Your task to perform on an android device: Play the last video I watched on Youtube Image 0: 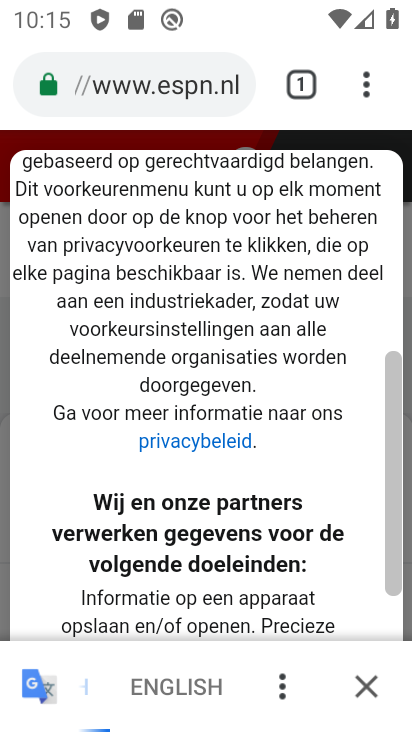
Step 0: press back button
Your task to perform on an android device: Play the last video I watched on Youtube Image 1: 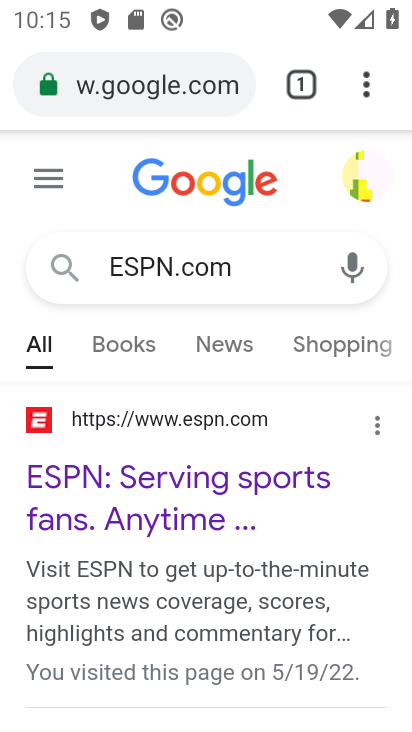
Step 1: press back button
Your task to perform on an android device: Play the last video I watched on Youtube Image 2: 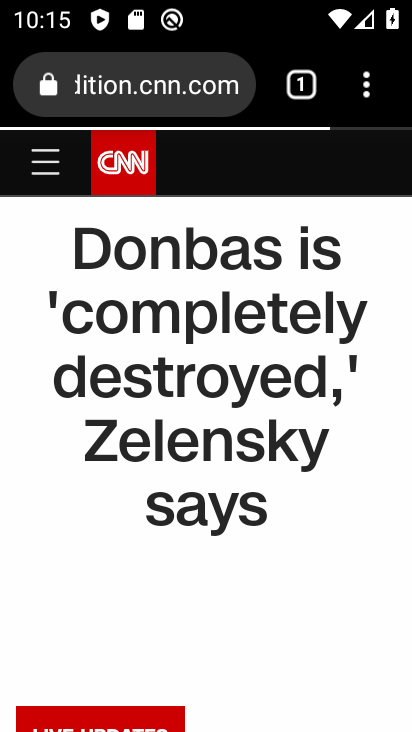
Step 2: press back button
Your task to perform on an android device: Play the last video I watched on Youtube Image 3: 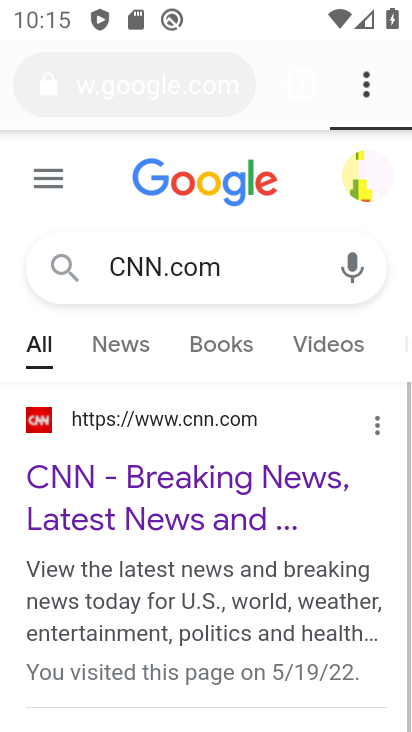
Step 3: press back button
Your task to perform on an android device: Play the last video I watched on Youtube Image 4: 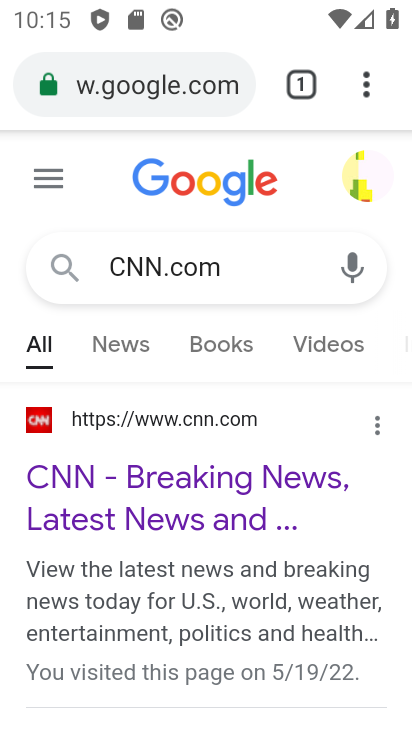
Step 4: press back button
Your task to perform on an android device: Play the last video I watched on Youtube Image 5: 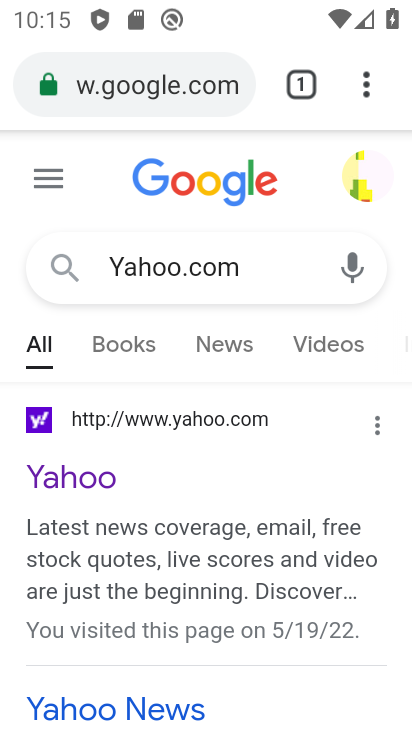
Step 5: press back button
Your task to perform on an android device: Play the last video I watched on Youtube Image 6: 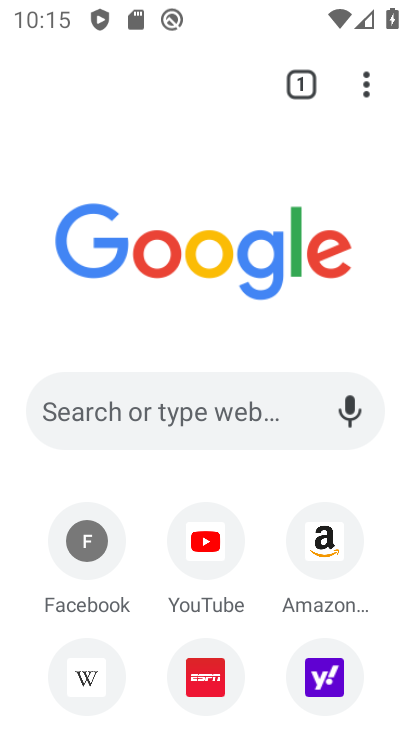
Step 6: press back button
Your task to perform on an android device: Play the last video I watched on Youtube Image 7: 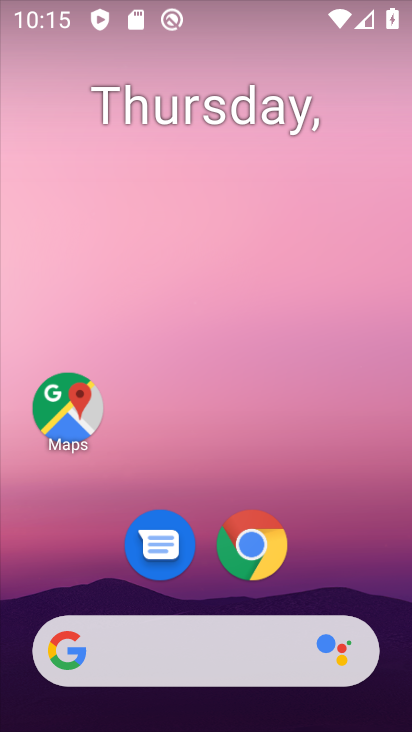
Step 7: drag from (333, 570) to (261, 156)
Your task to perform on an android device: Play the last video I watched on Youtube Image 8: 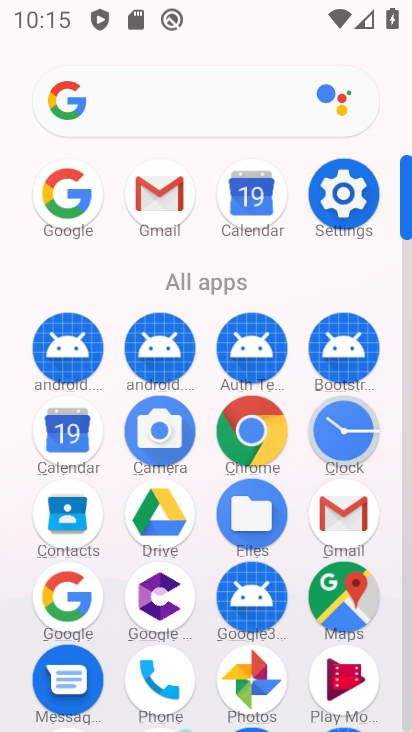
Step 8: drag from (285, 547) to (292, 261)
Your task to perform on an android device: Play the last video I watched on Youtube Image 9: 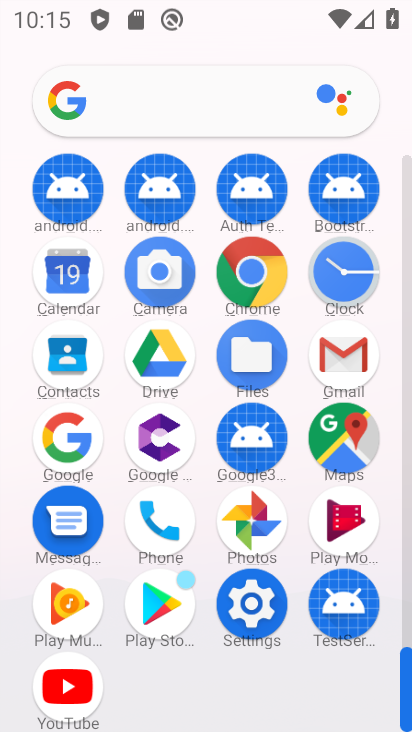
Step 9: click (67, 685)
Your task to perform on an android device: Play the last video I watched on Youtube Image 10: 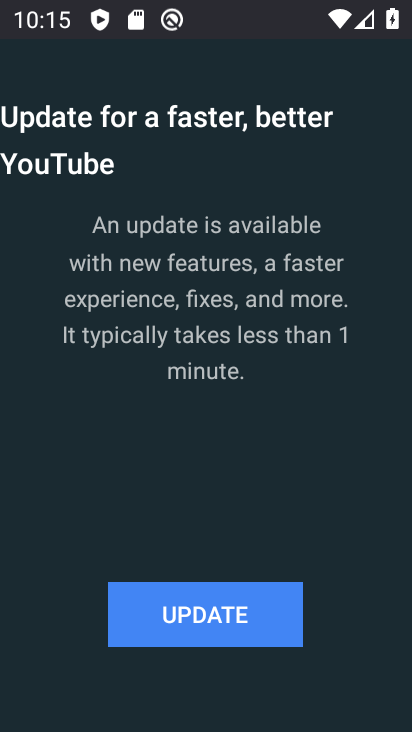
Step 10: click (184, 618)
Your task to perform on an android device: Play the last video I watched on Youtube Image 11: 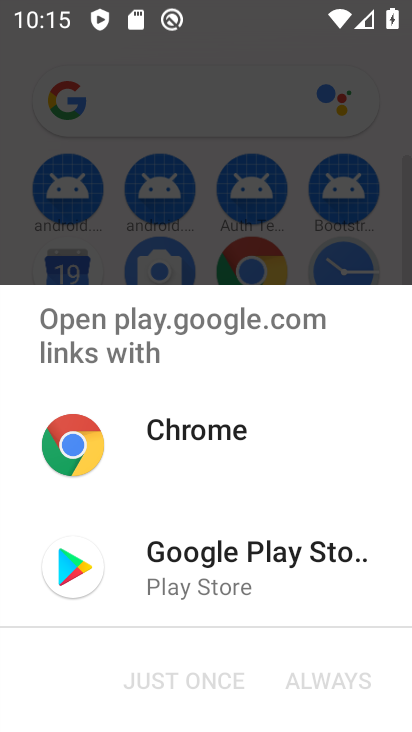
Step 11: click (202, 549)
Your task to perform on an android device: Play the last video I watched on Youtube Image 12: 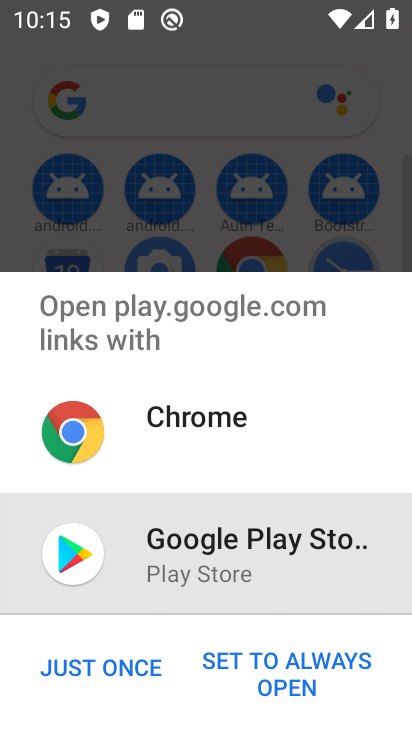
Step 12: click (79, 667)
Your task to perform on an android device: Play the last video I watched on Youtube Image 13: 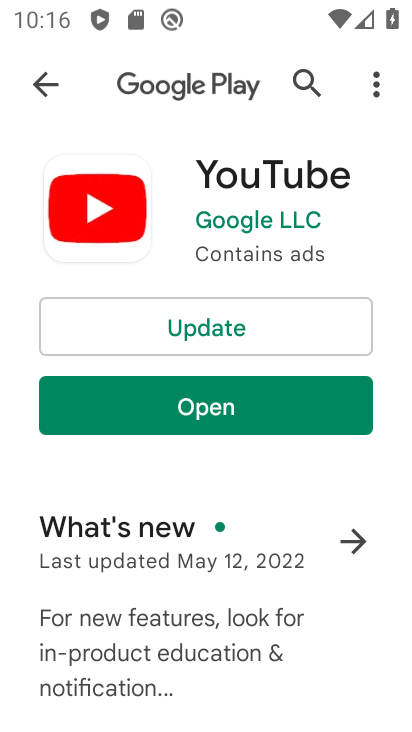
Step 13: click (204, 318)
Your task to perform on an android device: Play the last video I watched on Youtube Image 14: 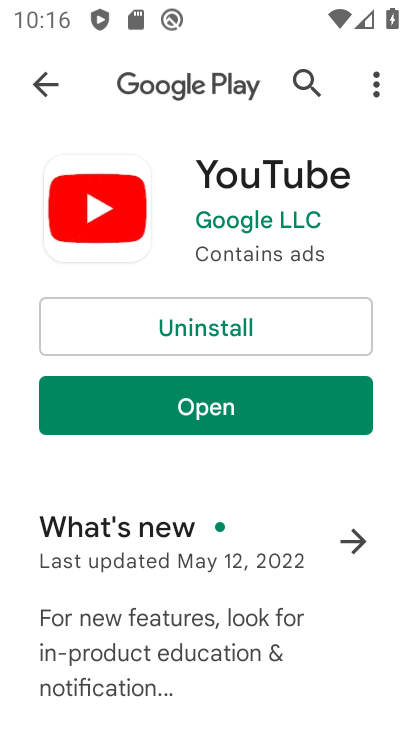
Step 14: click (231, 398)
Your task to perform on an android device: Play the last video I watched on Youtube Image 15: 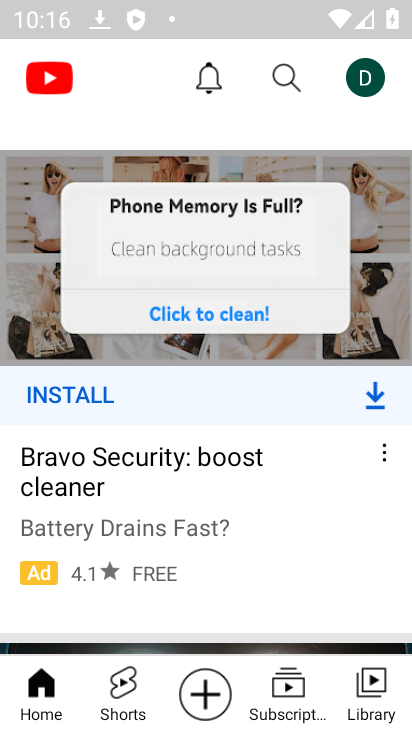
Step 15: click (368, 680)
Your task to perform on an android device: Play the last video I watched on Youtube Image 16: 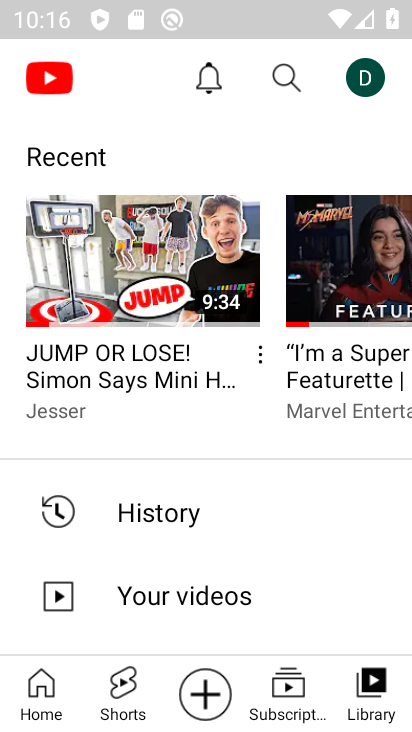
Step 16: click (127, 272)
Your task to perform on an android device: Play the last video I watched on Youtube Image 17: 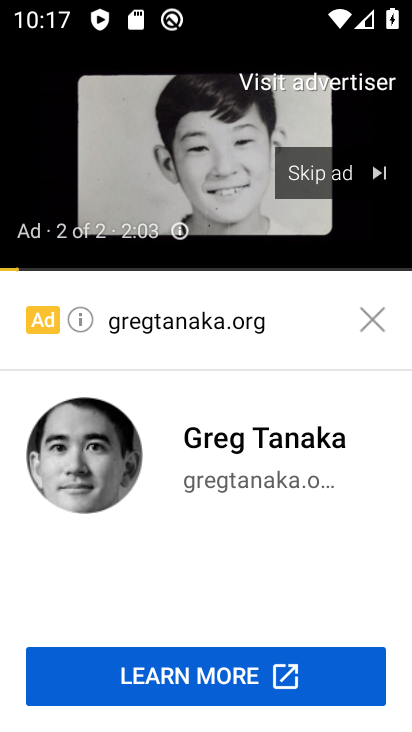
Step 17: click (353, 187)
Your task to perform on an android device: Play the last video I watched on Youtube Image 18: 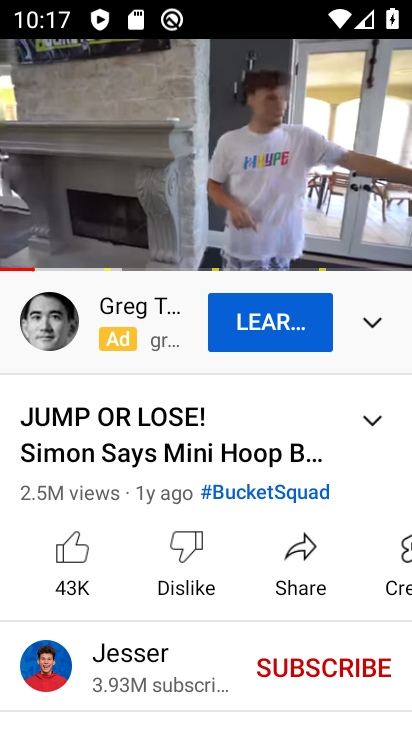
Step 18: click (228, 174)
Your task to perform on an android device: Play the last video I watched on Youtube Image 19: 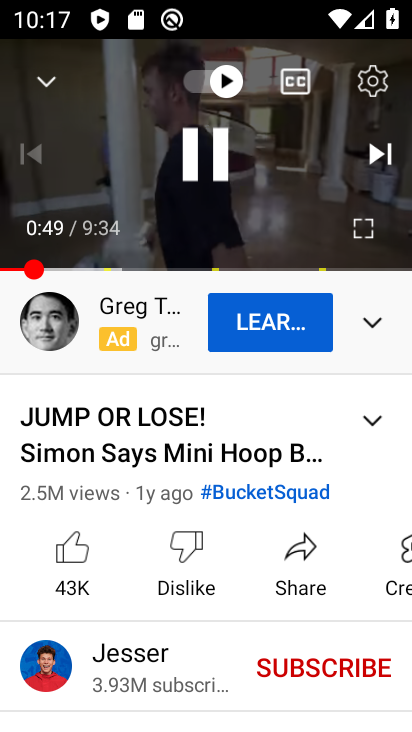
Step 19: click (214, 130)
Your task to perform on an android device: Play the last video I watched on Youtube Image 20: 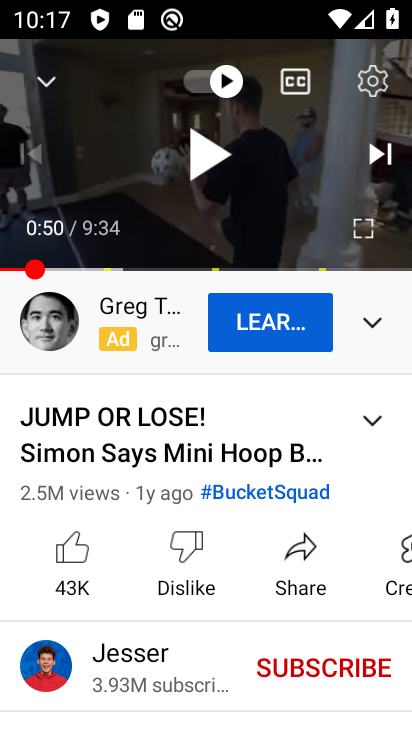
Step 20: task complete